Your task to perform on an android device: Add "logitech g pro" to the cart on target.com, then select checkout. Image 0: 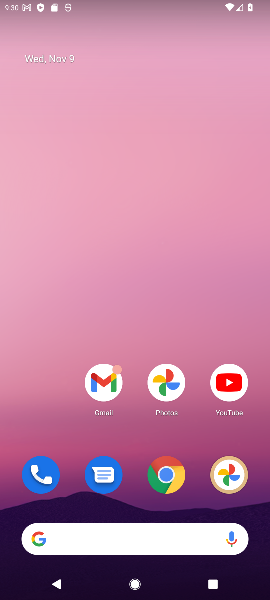
Step 0: click (171, 474)
Your task to perform on an android device: Add "logitech g pro" to the cart on target.com, then select checkout. Image 1: 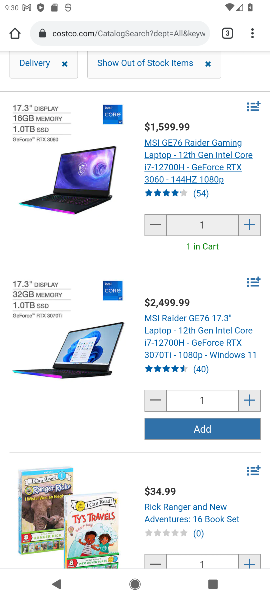
Step 1: click (226, 30)
Your task to perform on an android device: Add "logitech g pro" to the cart on target.com, then select checkout. Image 2: 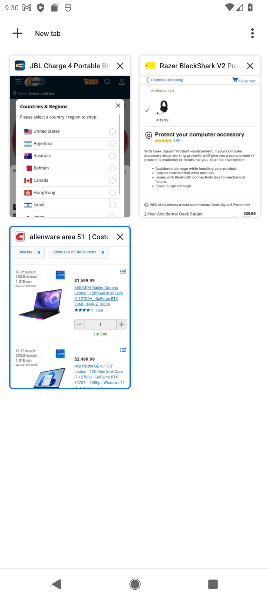
Step 2: click (14, 34)
Your task to perform on an android device: Add "logitech g pro" to the cart on target.com, then select checkout. Image 3: 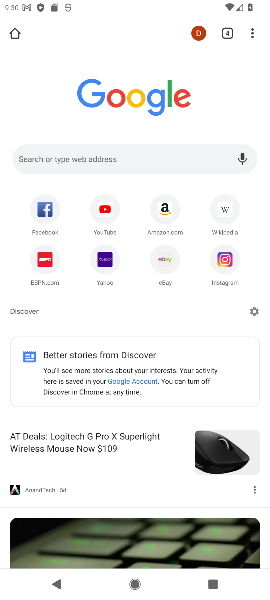
Step 3: click (100, 158)
Your task to perform on an android device: Add "logitech g pro" to the cart on target.com, then select checkout. Image 4: 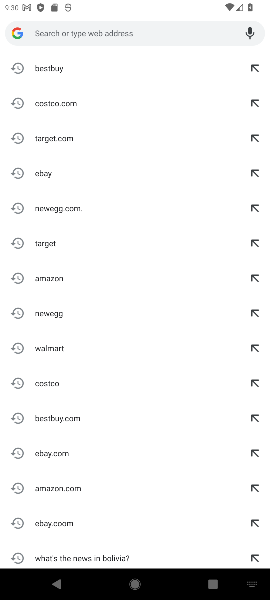
Step 4: click (42, 242)
Your task to perform on an android device: Add "logitech g pro" to the cart on target.com, then select checkout. Image 5: 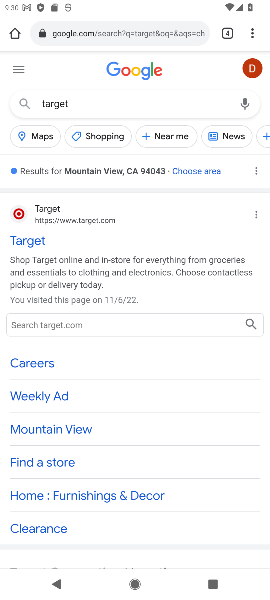
Step 5: click (56, 323)
Your task to perform on an android device: Add "logitech g pro" to the cart on target.com, then select checkout. Image 6: 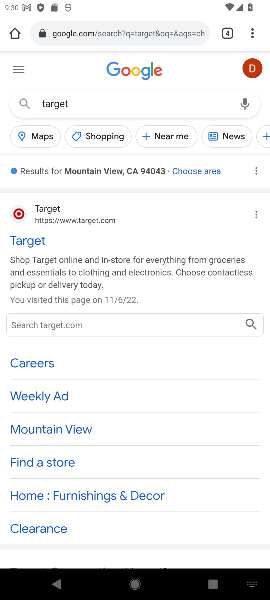
Step 6: type "logitech g pro"
Your task to perform on an android device: Add "logitech g pro" to the cart on target.com, then select checkout. Image 7: 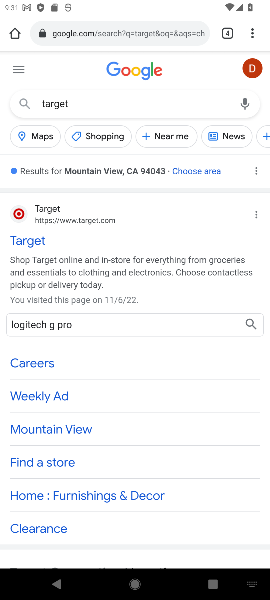
Step 7: click (247, 322)
Your task to perform on an android device: Add "logitech g pro" to the cart on target.com, then select checkout. Image 8: 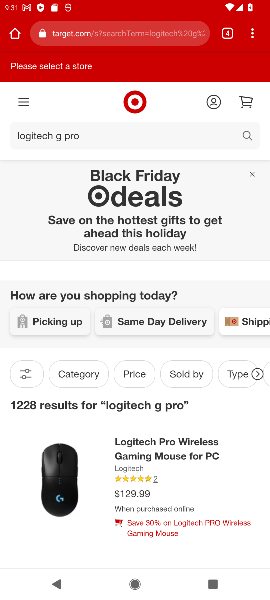
Step 8: drag from (239, 468) to (240, 208)
Your task to perform on an android device: Add "logitech g pro" to the cart on target.com, then select checkout. Image 9: 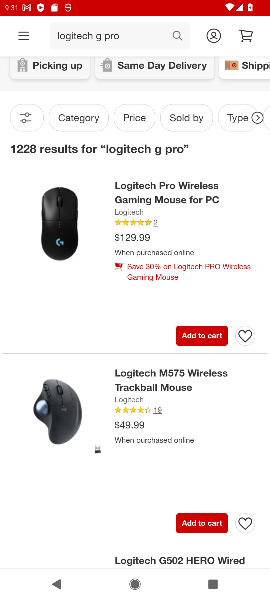
Step 9: click (191, 338)
Your task to perform on an android device: Add "logitech g pro" to the cart on target.com, then select checkout. Image 10: 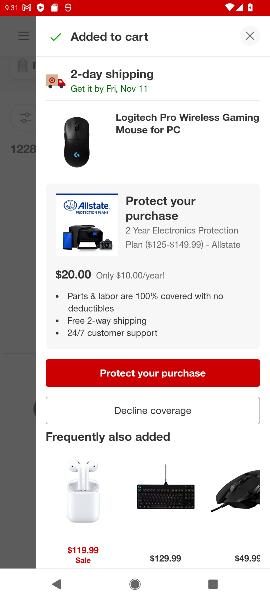
Step 10: click (163, 410)
Your task to perform on an android device: Add "logitech g pro" to the cart on target.com, then select checkout. Image 11: 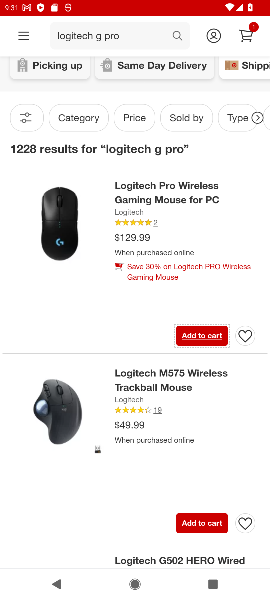
Step 11: click (250, 34)
Your task to perform on an android device: Add "logitech g pro" to the cart on target.com, then select checkout. Image 12: 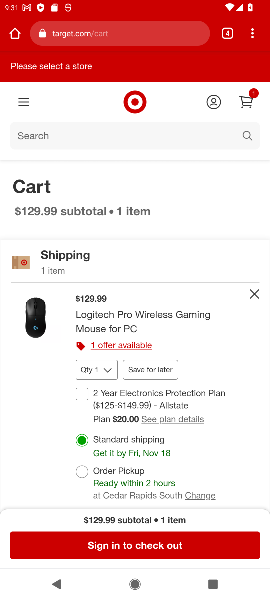
Step 12: click (138, 549)
Your task to perform on an android device: Add "logitech g pro" to the cart on target.com, then select checkout. Image 13: 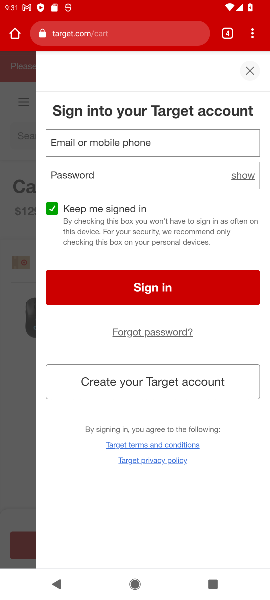
Step 13: task complete